Your task to perform on an android device: refresh tabs in the chrome app Image 0: 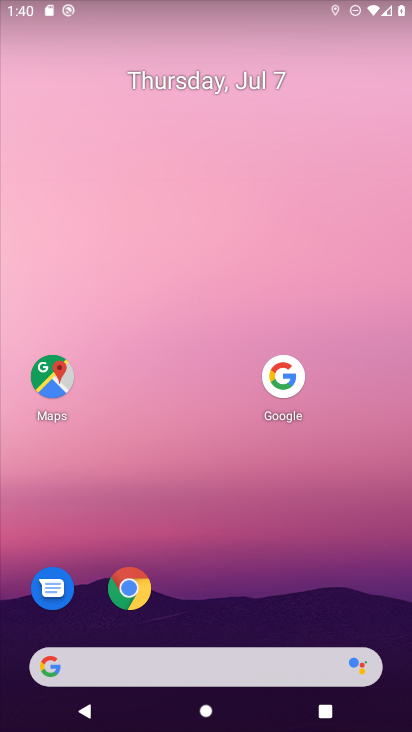
Step 0: click (137, 594)
Your task to perform on an android device: refresh tabs in the chrome app Image 1: 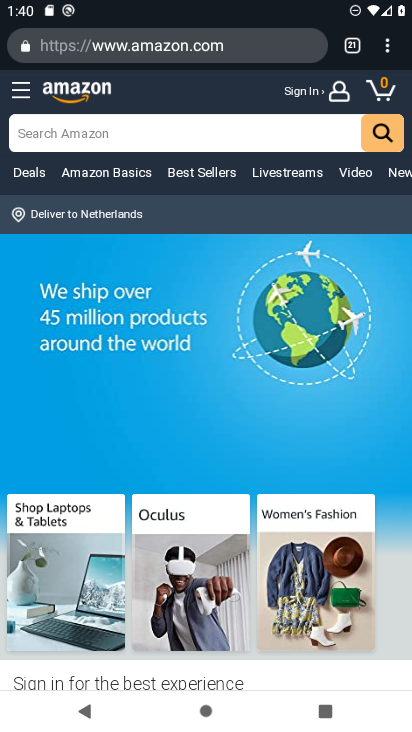
Step 1: click (388, 56)
Your task to perform on an android device: refresh tabs in the chrome app Image 2: 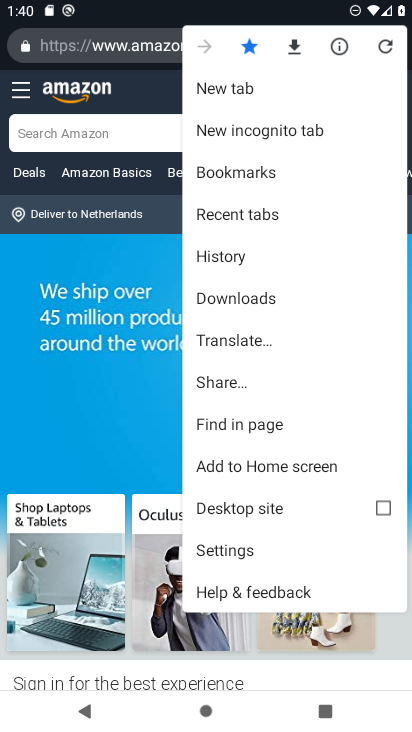
Step 2: click (382, 34)
Your task to perform on an android device: refresh tabs in the chrome app Image 3: 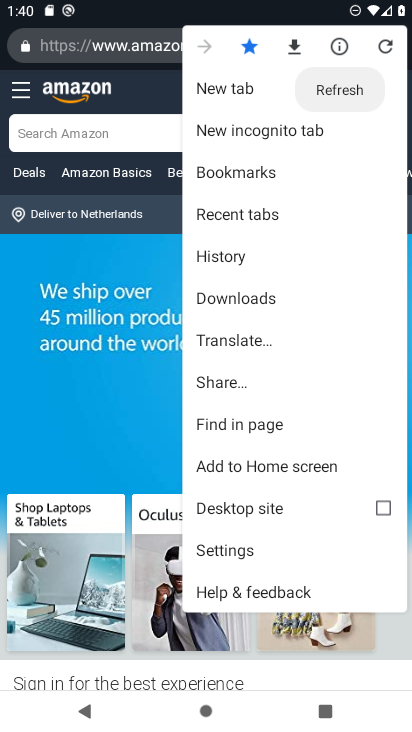
Step 3: click (380, 49)
Your task to perform on an android device: refresh tabs in the chrome app Image 4: 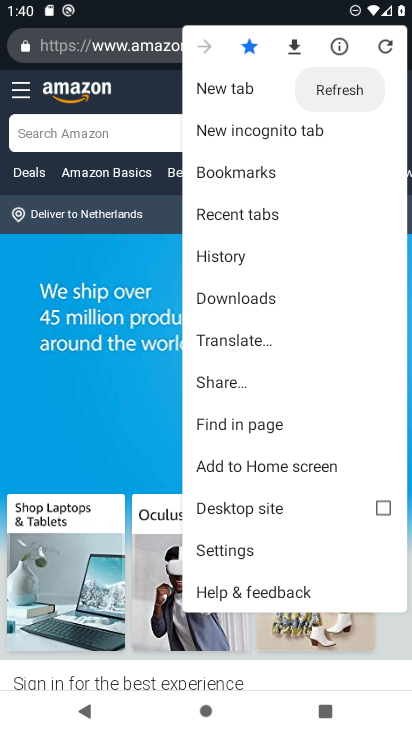
Step 4: click (380, 48)
Your task to perform on an android device: refresh tabs in the chrome app Image 5: 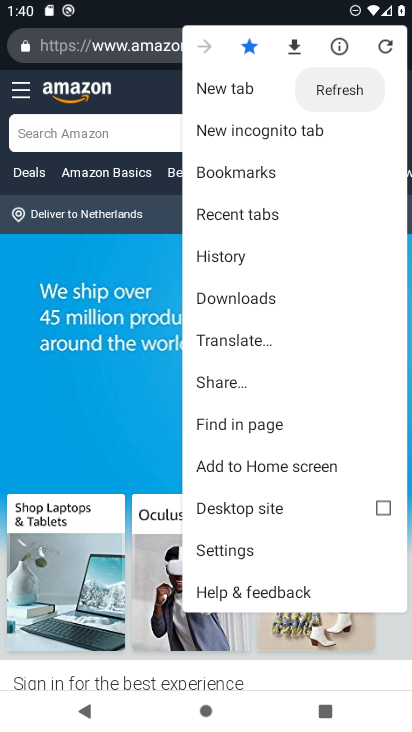
Step 5: click (391, 36)
Your task to perform on an android device: refresh tabs in the chrome app Image 6: 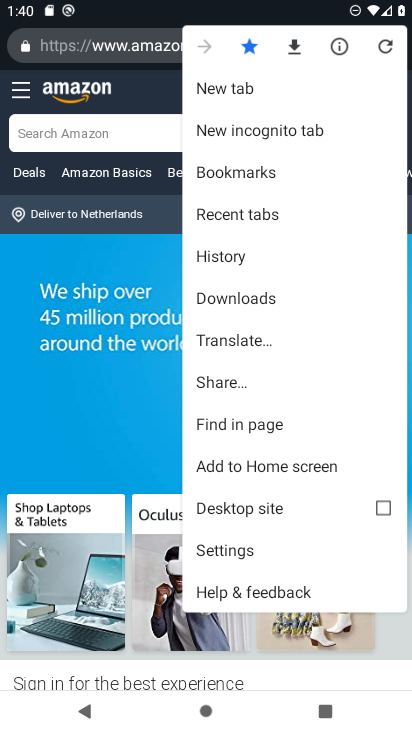
Step 6: click (388, 43)
Your task to perform on an android device: refresh tabs in the chrome app Image 7: 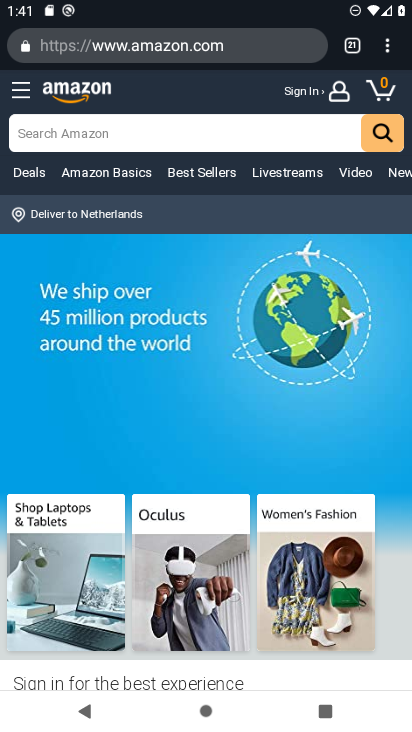
Step 7: task complete